Your task to perform on an android device: Search for seafood restaurants on Google Maps Image 0: 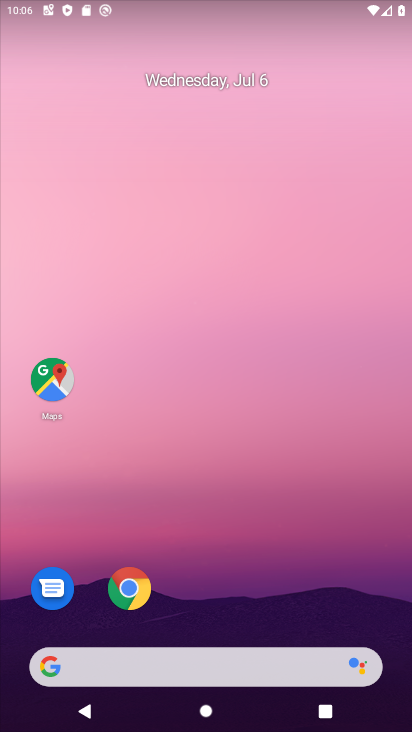
Step 0: drag from (199, 570) to (185, 166)
Your task to perform on an android device: Search for seafood restaurants on Google Maps Image 1: 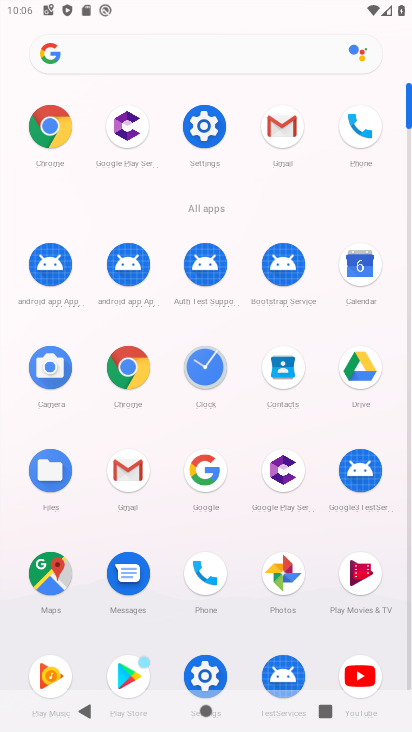
Step 1: click (48, 571)
Your task to perform on an android device: Search for seafood restaurants on Google Maps Image 2: 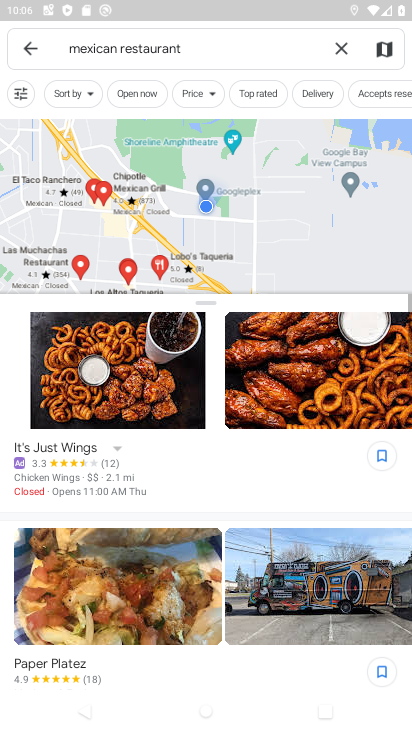
Step 2: click (351, 35)
Your task to perform on an android device: Search for seafood restaurants on Google Maps Image 3: 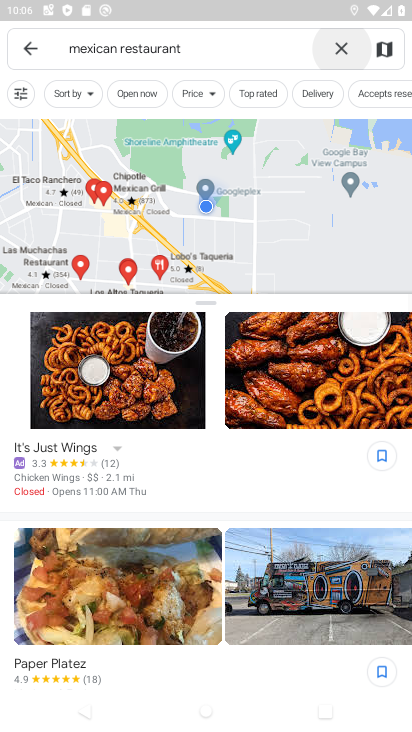
Step 3: click (347, 43)
Your task to perform on an android device: Search for seafood restaurants on Google Maps Image 4: 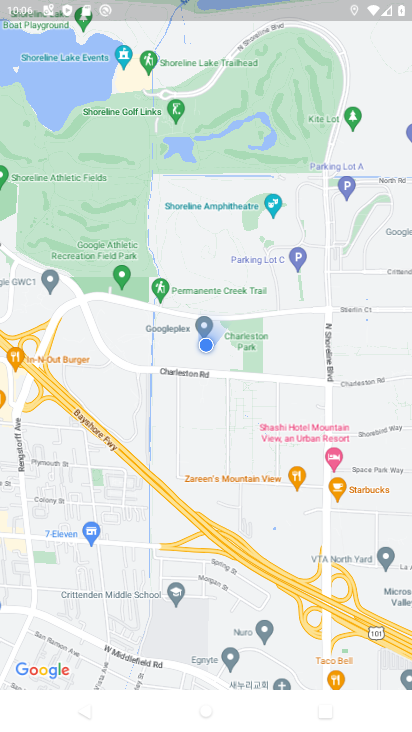
Step 4: drag from (158, 396) to (190, 621)
Your task to perform on an android device: Search for seafood restaurants on Google Maps Image 5: 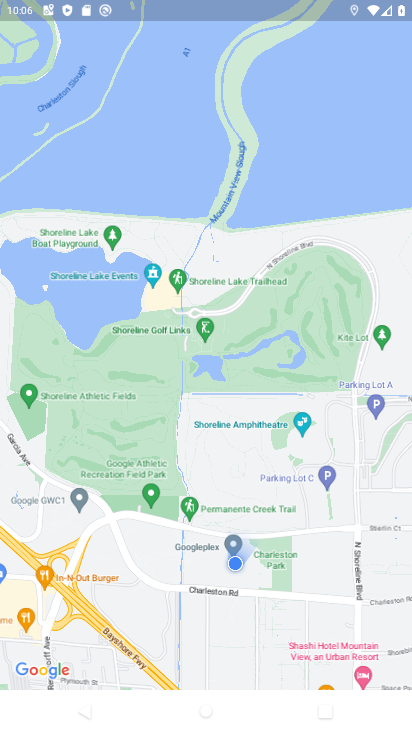
Step 5: click (182, 568)
Your task to perform on an android device: Search for seafood restaurants on Google Maps Image 6: 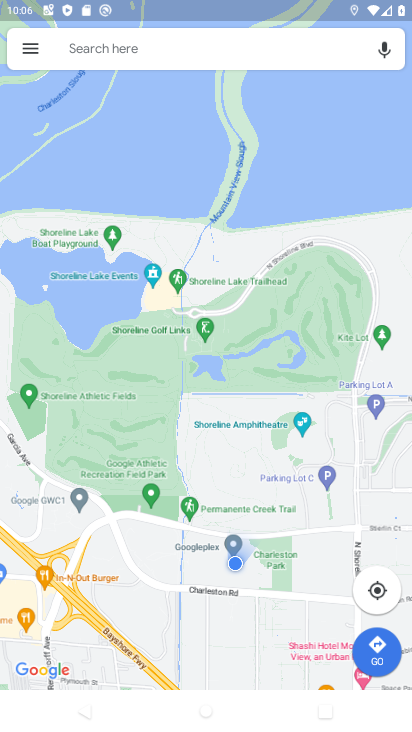
Step 6: click (199, 39)
Your task to perform on an android device: Search for seafood restaurants on Google Maps Image 7: 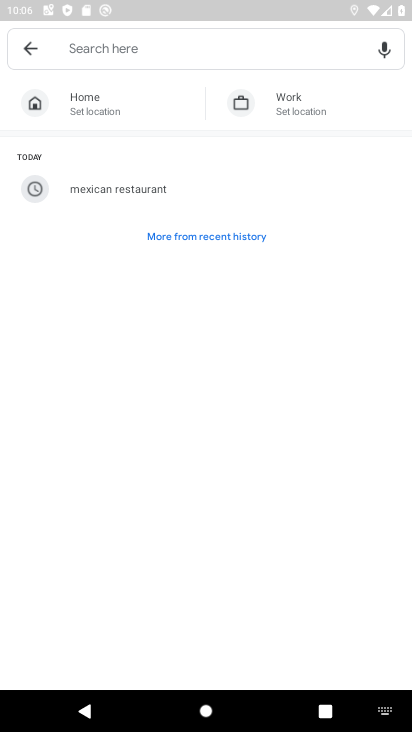
Step 7: type "seafood restaurants  "
Your task to perform on an android device: Search for seafood restaurants on Google Maps Image 8: 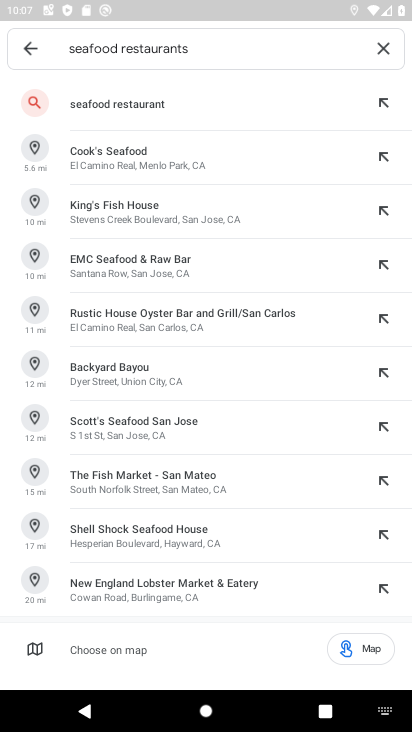
Step 8: click (128, 91)
Your task to perform on an android device: Search for seafood restaurants on Google Maps Image 9: 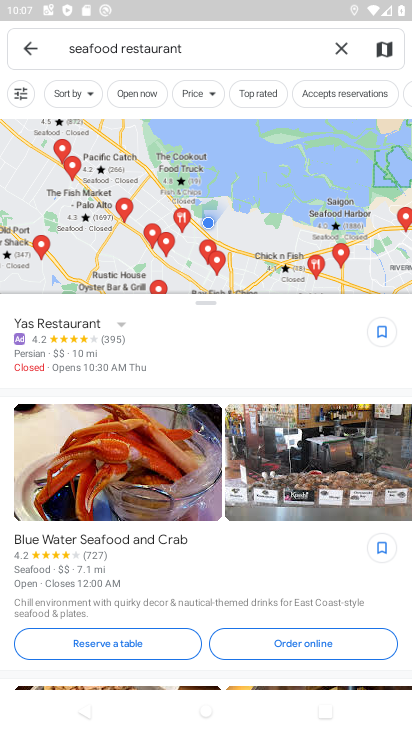
Step 9: task complete